Your task to perform on an android device: Go to Yahoo.com Image 0: 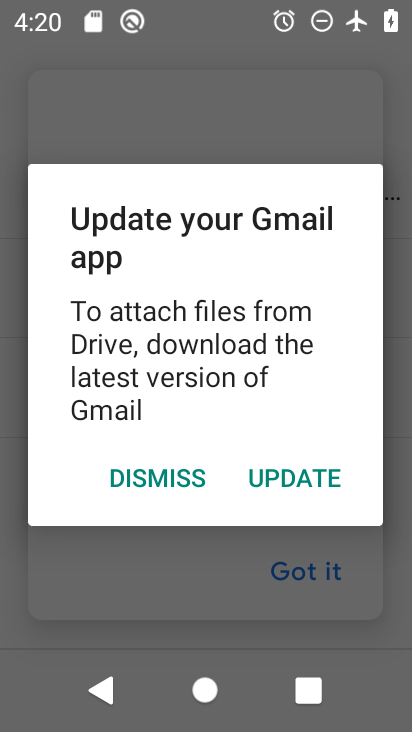
Step 0: press home button
Your task to perform on an android device: Go to Yahoo.com Image 1: 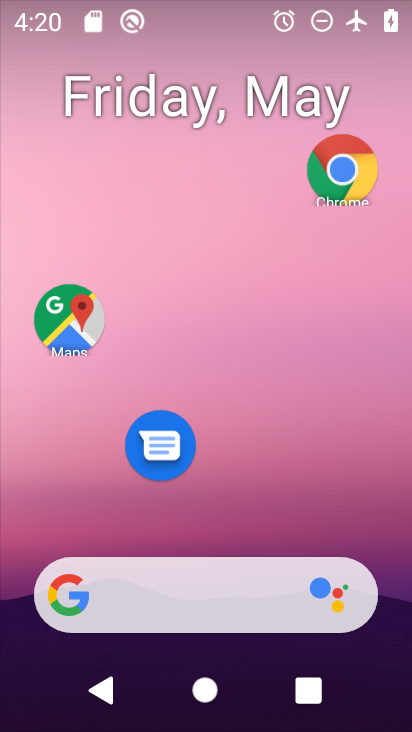
Step 1: click (337, 179)
Your task to perform on an android device: Go to Yahoo.com Image 2: 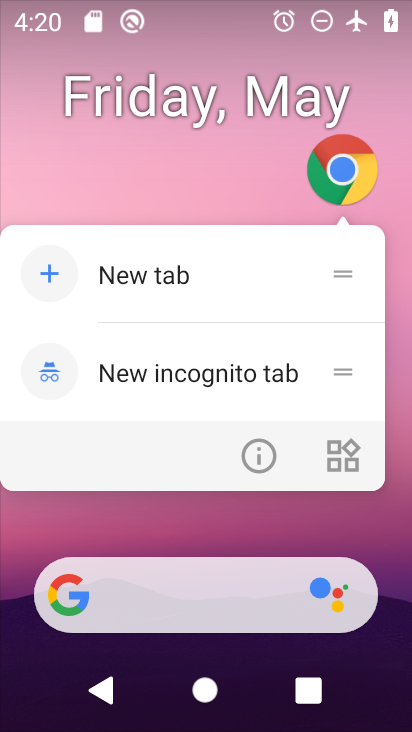
Step 2: click (341, 177)
Your task to perform on an android device: Go to Yahoo.com Image 3: 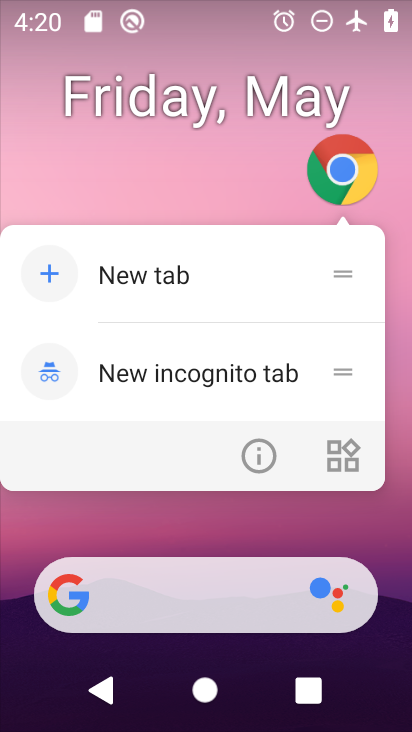
Step 3: click (350, 166)
Your task to perform on an android device: Go to Yahoo.com Image 4: 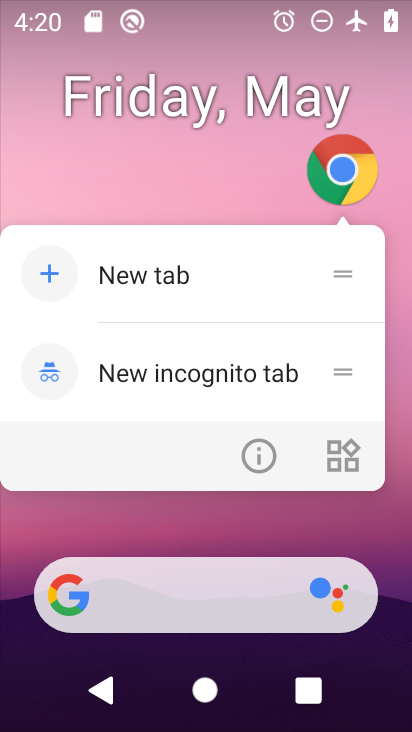
Step 4: click (342, 163)
Your task to perform on an android device: Go to Yahoo.com Image 5: 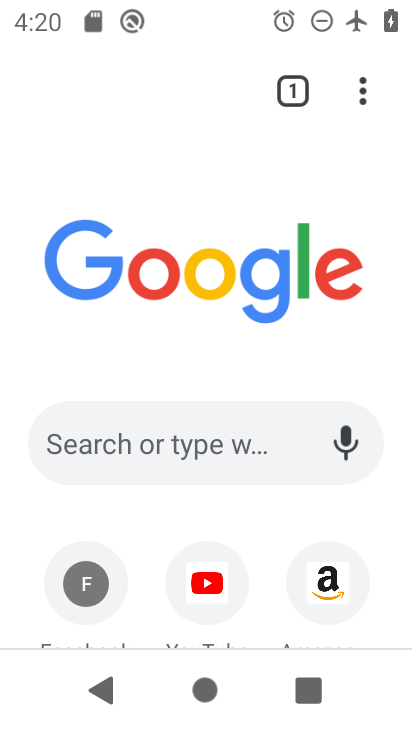
Step 5: drag from (270, 543) to (260, 285)
Your task to perform on an android device: Go to Yahoo.com Image 6: 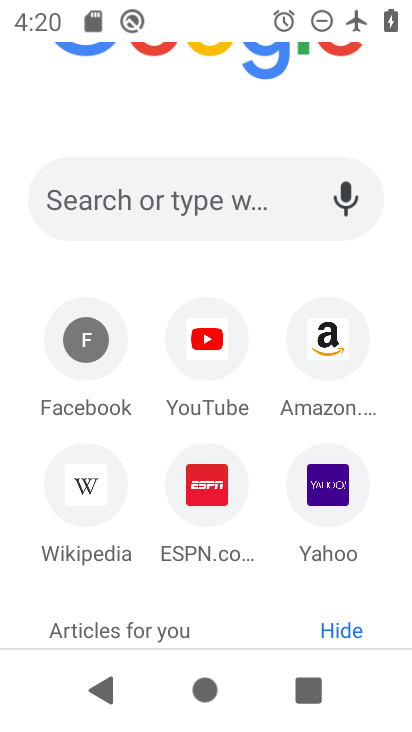
Step 6: click (329, 515)
Your task to perform on an android device: Go to Yahoo.com Image 7: 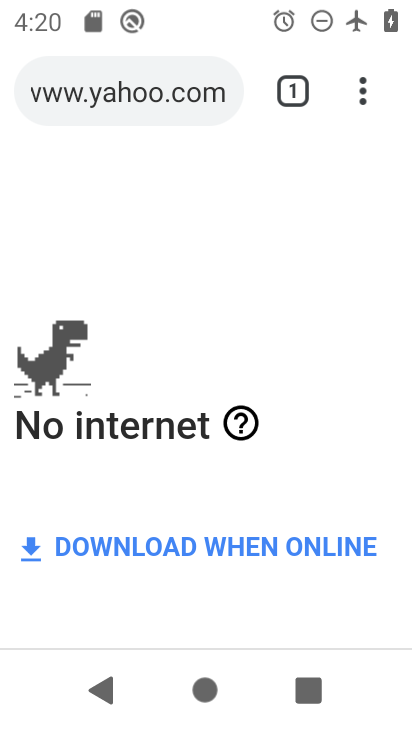
Step 7: press back button
Your task to perform on an android device: Go to Yahoo.com Image 8: 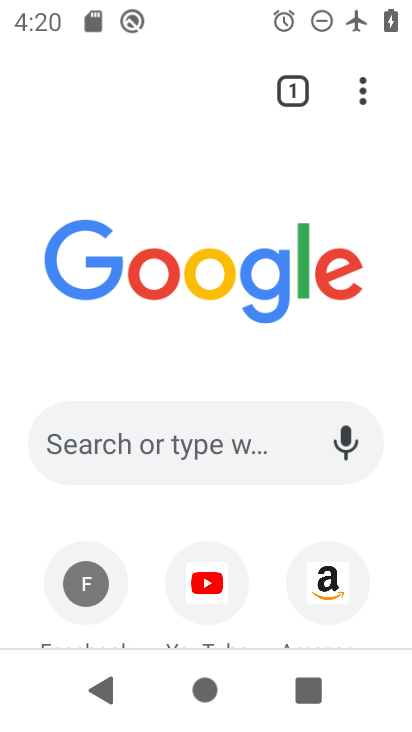
Step 8: press back button
Your task to perform on an android device: Go to Yahoo.com Image 9: 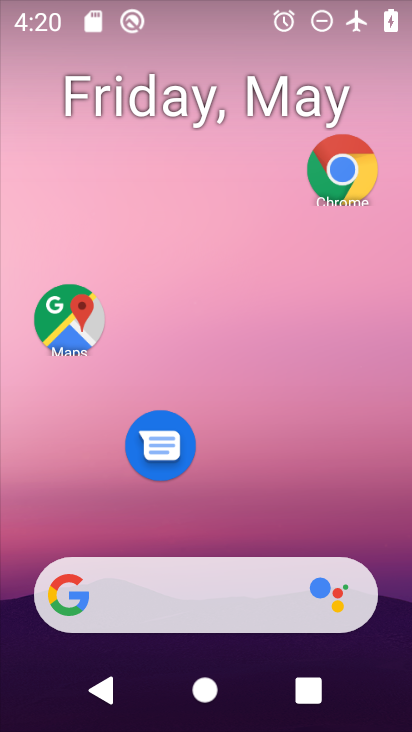
Step 9: drag from (275, 504) to (316, 11)
Your task to perform on an android device: Go to Yahoo.com Image 10: 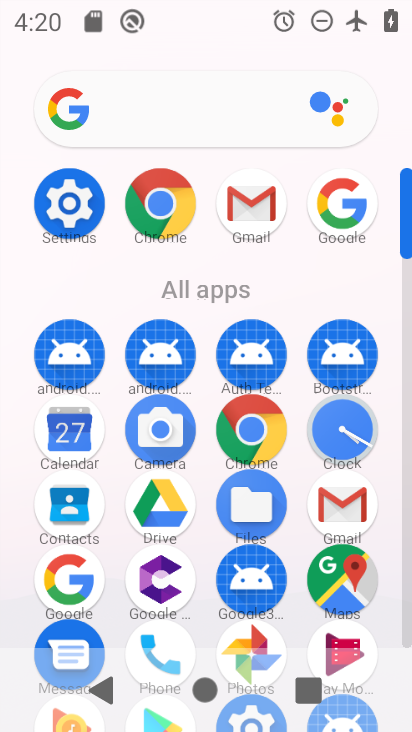
Step 10: click (69, 202)
Your task to perform on an android device: Go to Yahoo.com Image 11: 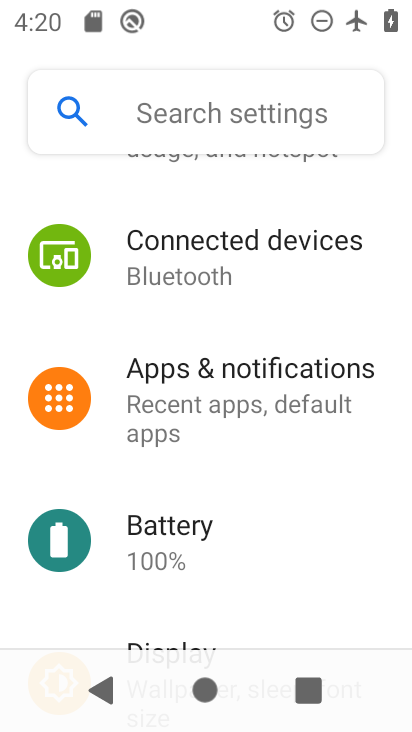
Step 11: drag from (345, 206) to (296, 731)
Your task to perform on an android device: Go to Yahoo.com Image 12: 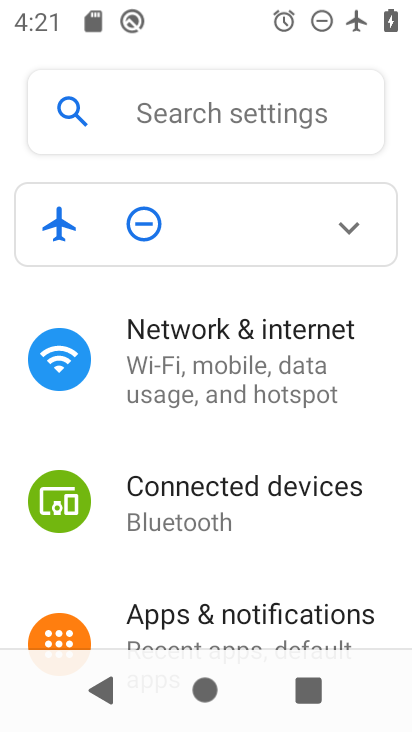
Step 12: click (353, 221)
Your task to perform on an android device: Go to Yahoo.com Image 13: 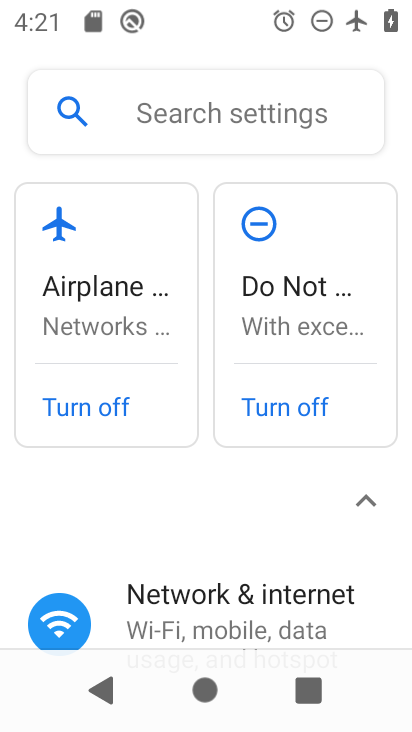
Step 13: click (87, 411)
Your task to perform on an android device: Go to Yahoo.com Image 14: 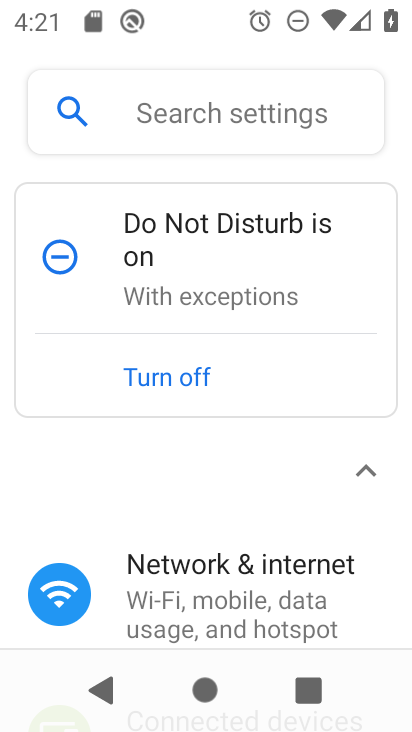
Step 14: press home button
Your task to perform on an android device: Go to Yahoo.com Image 15: 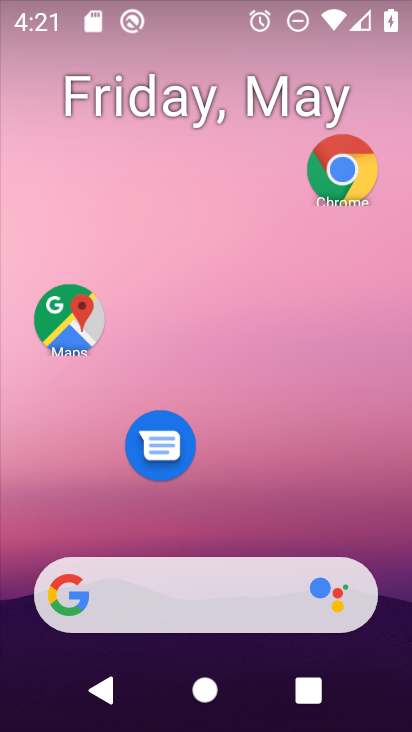
Step 15: click (347, 173)
Your task to perform on an android device: Go to Yahoo.com Image 16: 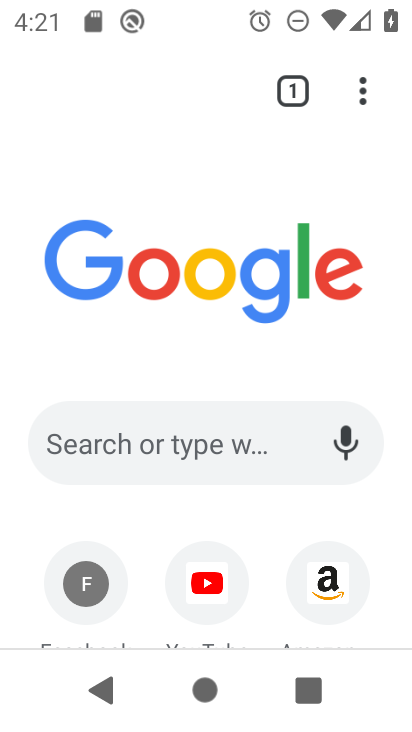
Step 16: drag from (285, 565) to (283, 211)
Your task to perform on an android device: Go to Yahoo.com Image 17: 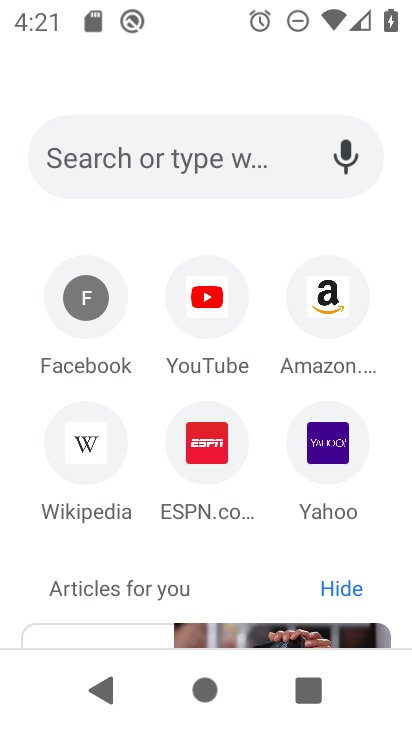
Step 17: click (324, 464)
Your task to perform on an android device: Go to Yahoo.com Image 18: 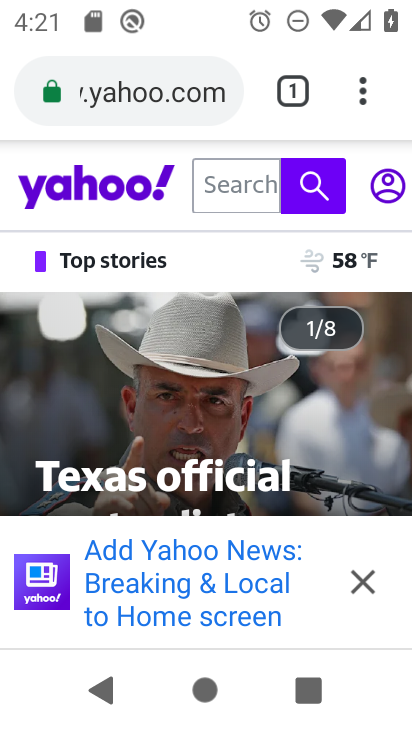
Step 18: task complete